Your task to perform on an android device: Do I have any events today? Image 0: 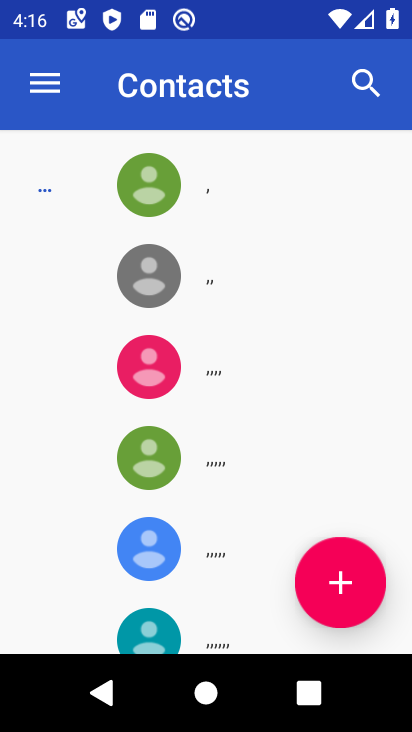
Step 0: press home button
Your task to perform on an android device: Do I have any events today? Image 1: 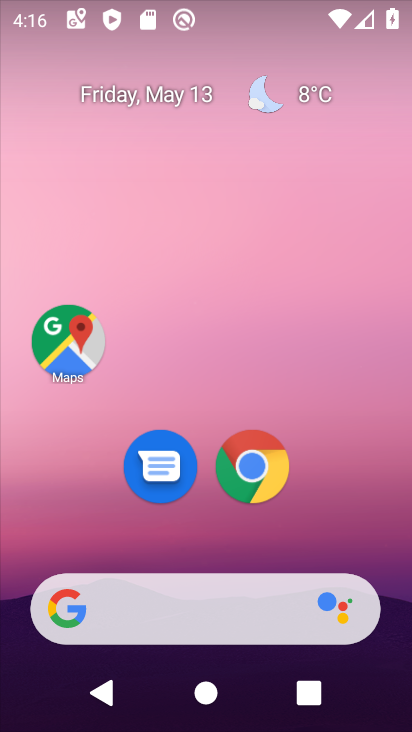
Step 1: drag from (385, 587) to (310, 0)
Your task to perform on an android device: Do I have any events today? Image 2: 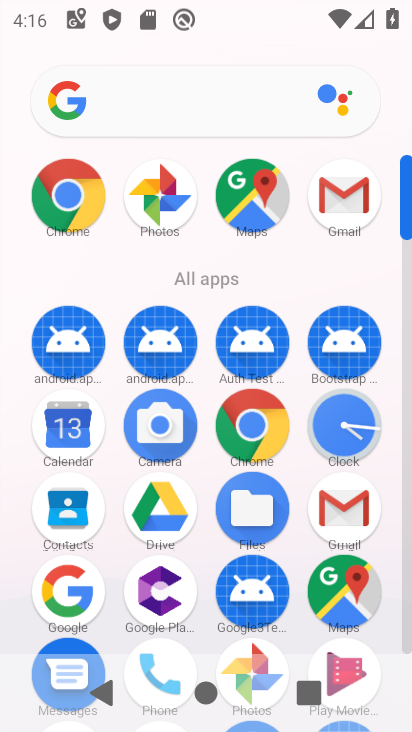
Step 2: click (65, 434)
Your task to perform on an android device: Do I have any events today? Image 3: 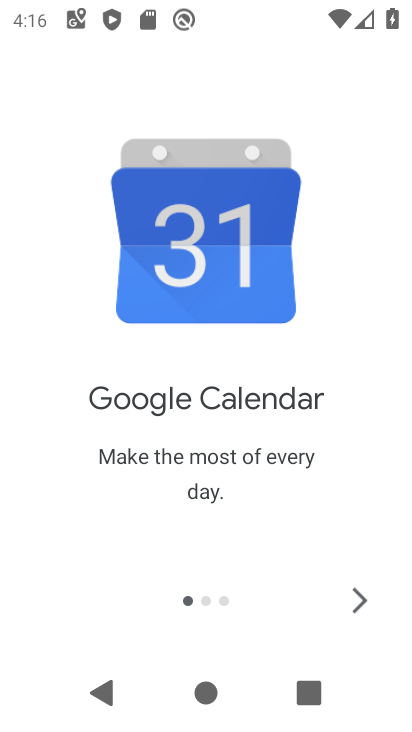
Step 3: click (360, 602)
Your task to perform on an android device: Do I have any events today? Image 4: 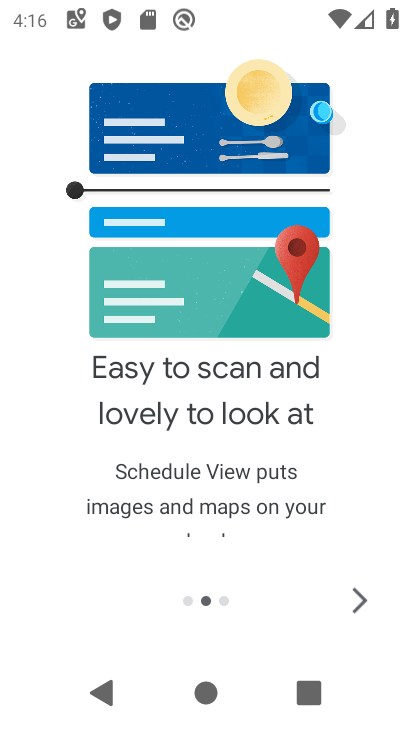
Step 4: click (360, 602)
Your task to perform on an android device: Do I have any events today? Image 5: 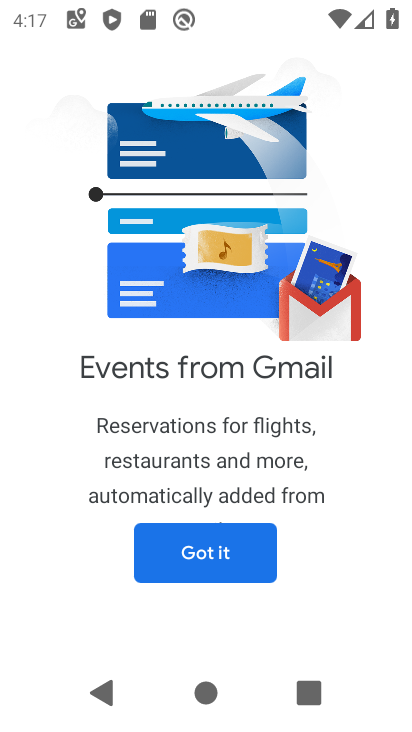
Step 5: click (201, 548)
Your task to perform on an android device: Do I have any events today? Image 6: 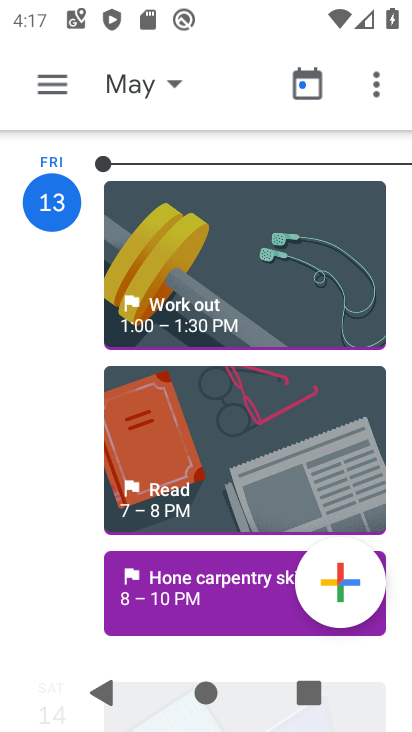
Step 6: click (56, 94)
Your task to perform on an android device: Do I have any events today? Image 7: 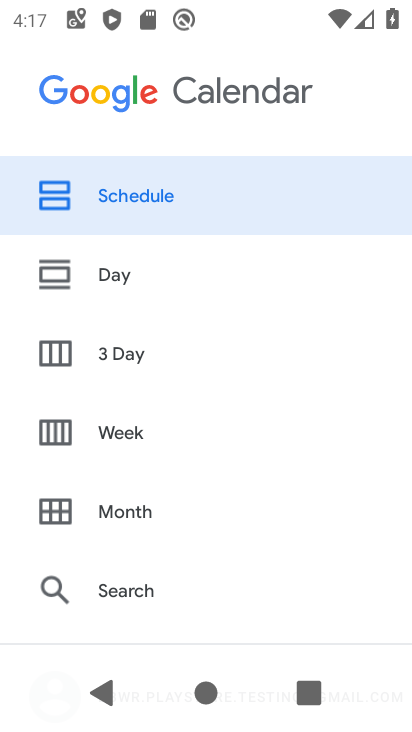
Step 7: click (113, 274)
Your task to perform on an android device: Do I have any events today? Image 8: 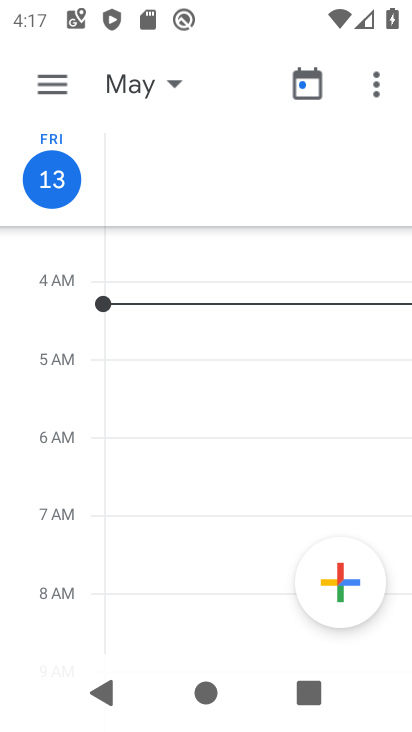
Step 8: task complete